Your task to perform on an android device: choose inbox layout in the gmail app Image 0: 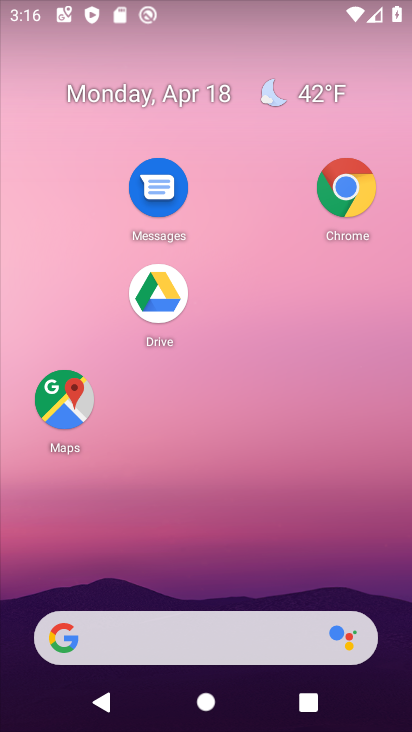
Step 0: drag from (198, 576) to (295, 47)
Your task to perform on an android device: choose inbox layout in the gmail app Image 1: 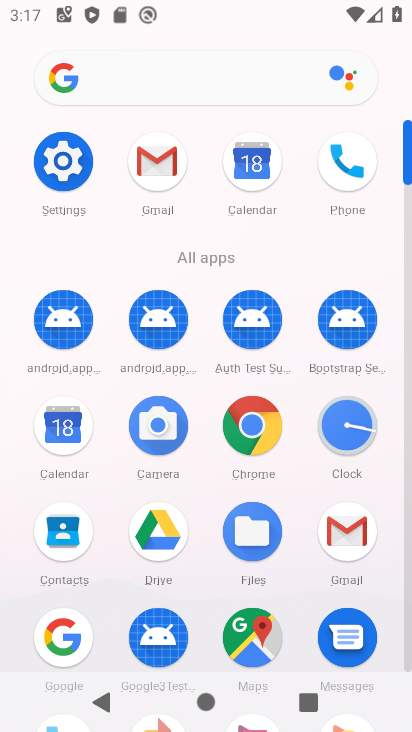
Step 1: click (349, 529)
Your task to perform on an android device: choose inbox layout in the gmail app Image 2: 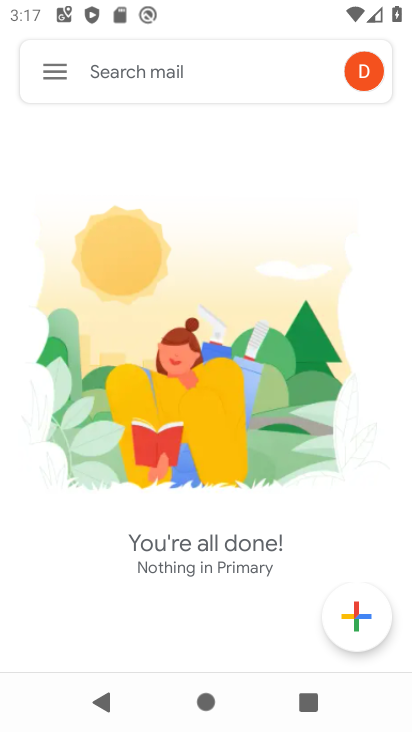
Step 2: click (58, 81)
Your task to perform on an android device: choose inbox layout in the gmail app Image 3: 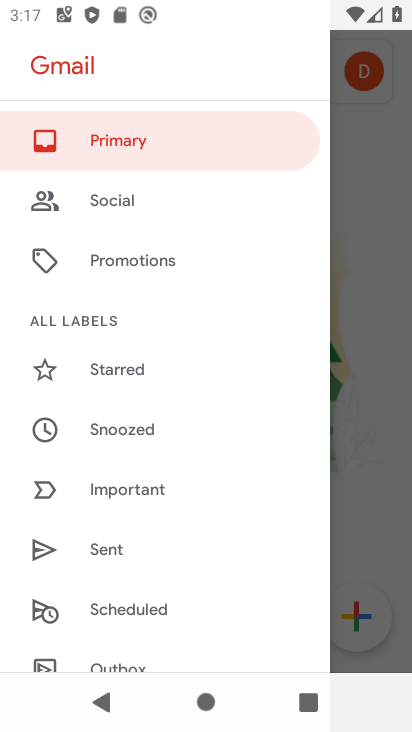
Step 3: drag from (138, 563) to (163, 453)
Your task to perform on an android device: choose inbox layout in the gmail app Image 4: 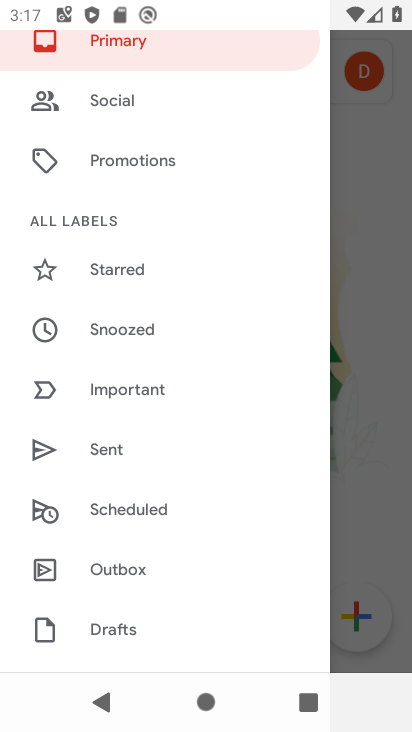
Step 4: drag from (137, 536) to (174, 423)
Your task to perform on an android device: choose inbox layout in the gmail app Image 5: 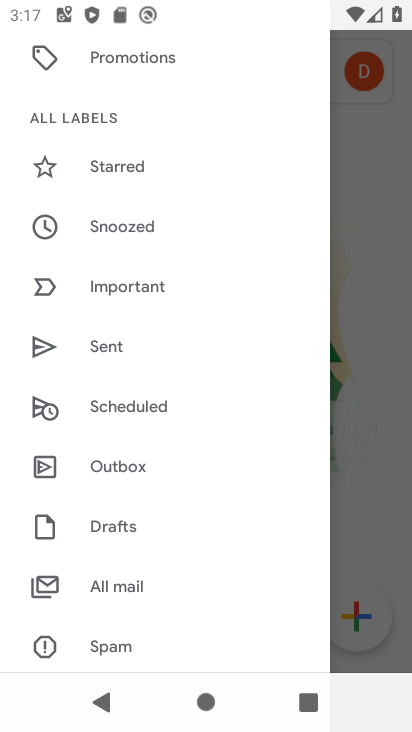
Step 5: drag from (149, 529) to (165, 450)
Your task to perform on an android device: choose inbox layout in the gmail app Image 6: 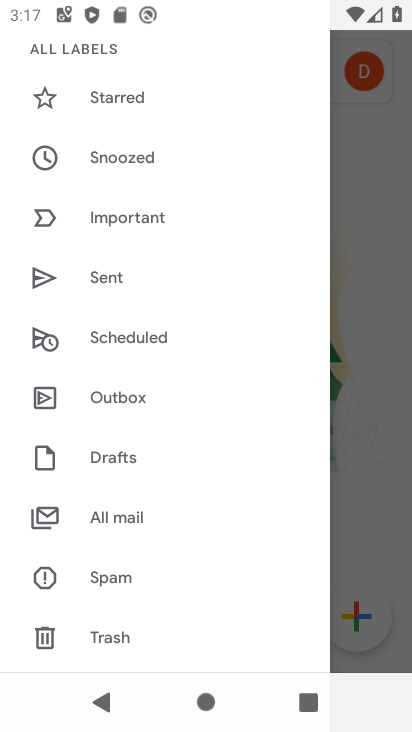
Step 6: drag from (140, 555) to (169, 434)
Your task to perform on an android device: choose inbox layout in the gmail app Image 7: 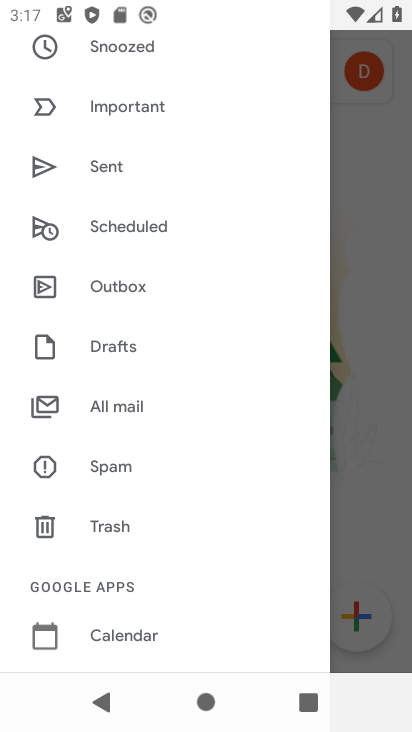
Step 7: drag from (156, 536) to (185, 456)
Your task to perform on an android device: choose inbox layout in the gmail app Image 8: 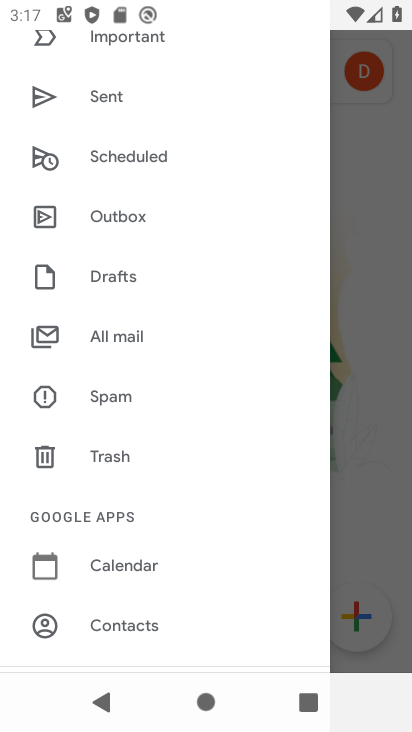
Step 8: drag from (160, 594) to (187, 489)
Your task to perform on an android device: choose inbox layout in the gmail app Image 9: 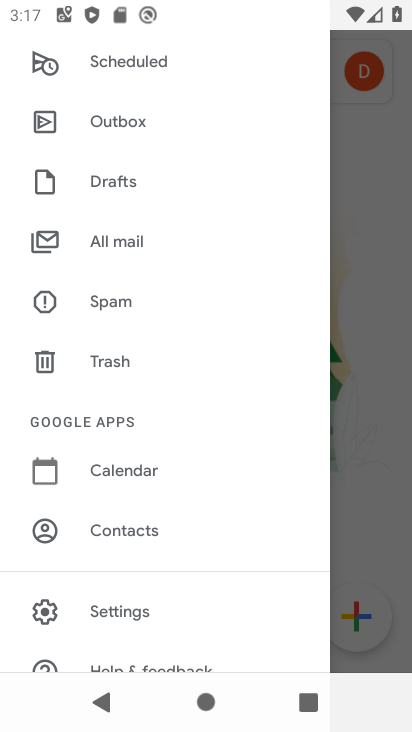
Step 9: drag from (160, 561) to (188, 466)
Your task to perform on an android device: choose inbox layout in the gmail app Image 10: 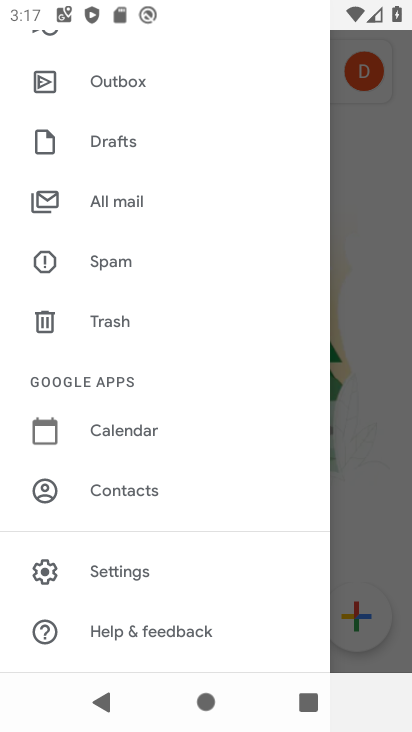
Step 10: click (129, 573)
Your task to perform on an android device: choose inbox layout in the gmail app Image 11: 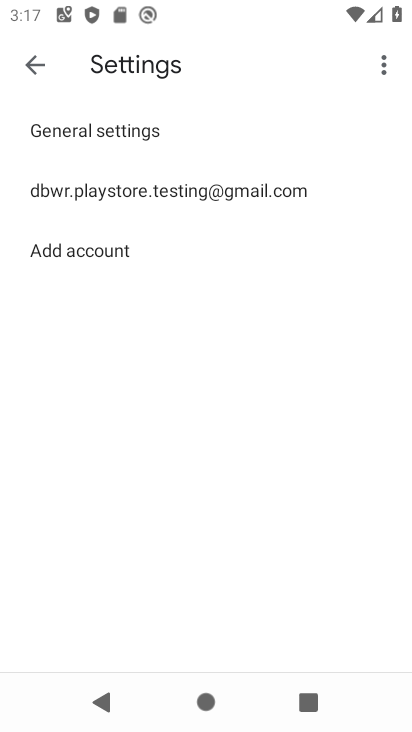
Step 11: click (154, 186)
Your task to perform on an android device: choose inbox layout in the gmail app Image 12: 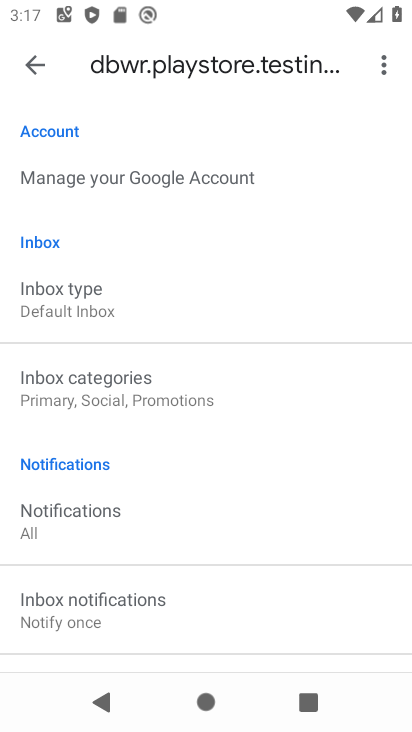
Step 12: click (85, 313)
Your task to perform on an android device: choose inbox layout in the gmail app Image 13: 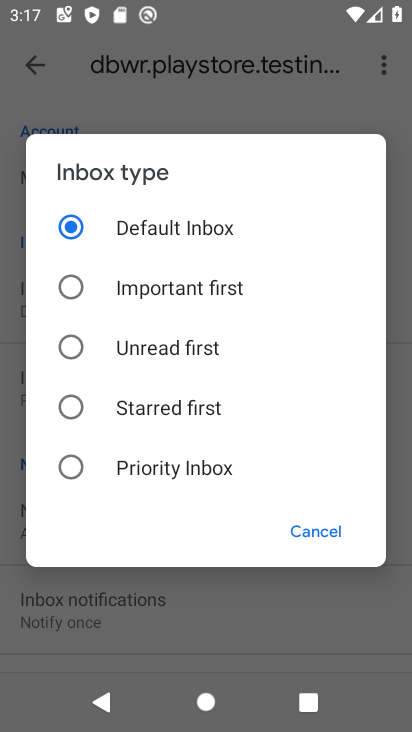
Step 13: click (81, 299)
Your task to perform on an android device: choose inbox layout in the gmail app Image 14: 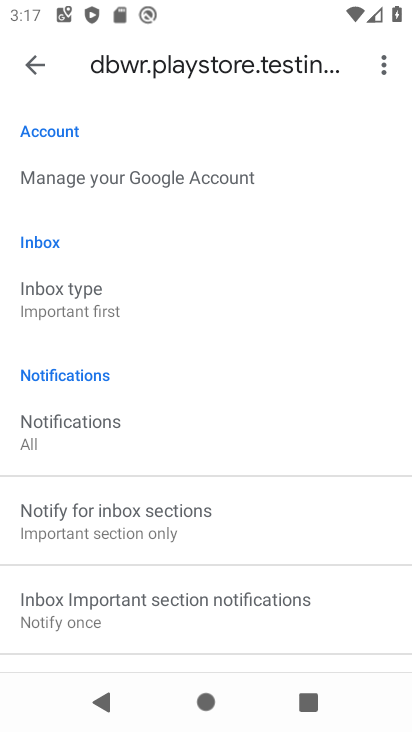
Step 14: task complete